Your task to perform on an android device: create a new album in the google photos Image 0: 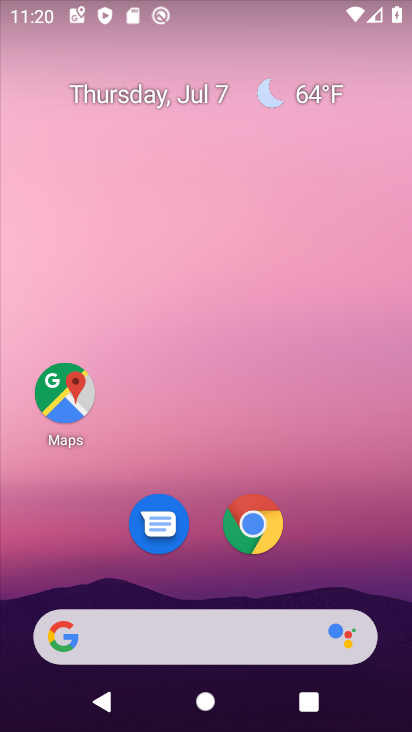
Step 0: drag from (286, 468) to (328, 24)
Your task to perform on an android device: create a new album in the google photos Image 1: 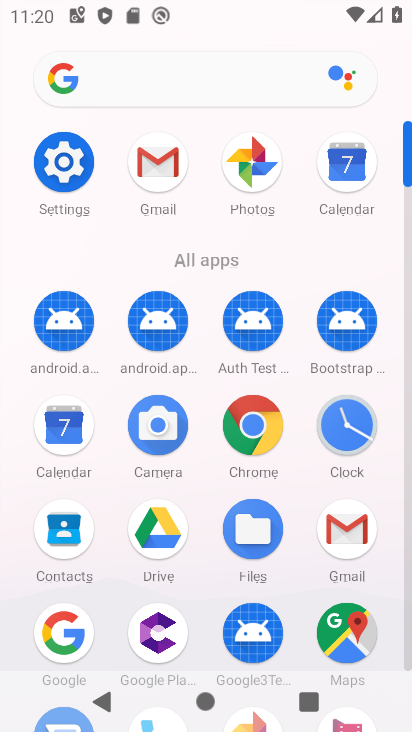
Step 1: click (252, 165)
Your task to perform on an android device: create a new album in the google photos Image 2: 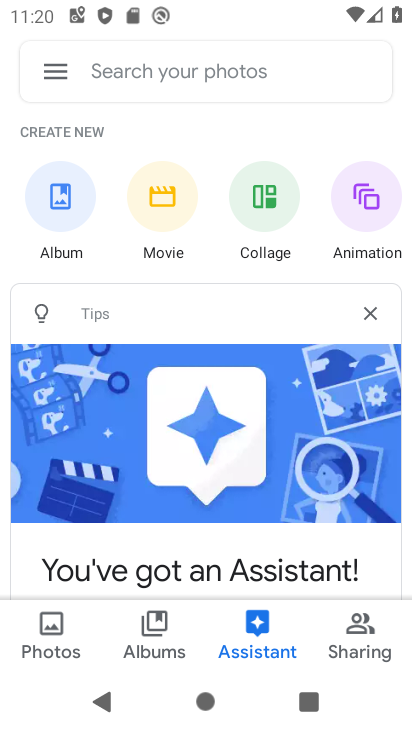
Step 2: click (152, 646)
Your task to perform on an android device: create a new album in the google photos Image 3: 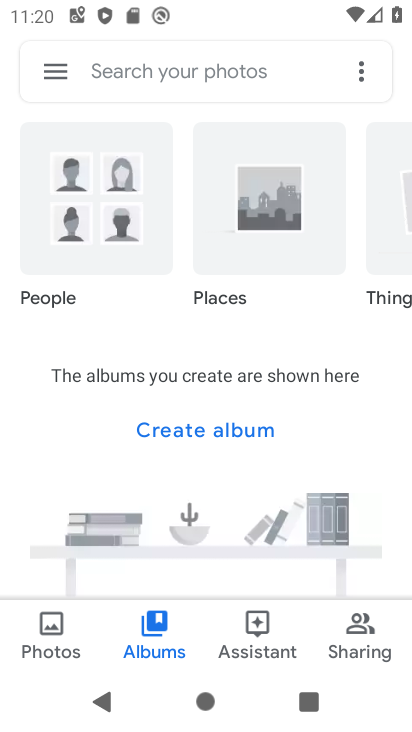
Step 3: click (250, 424)
Your task to perform on an android device: create a new album in the google photos Image 4: 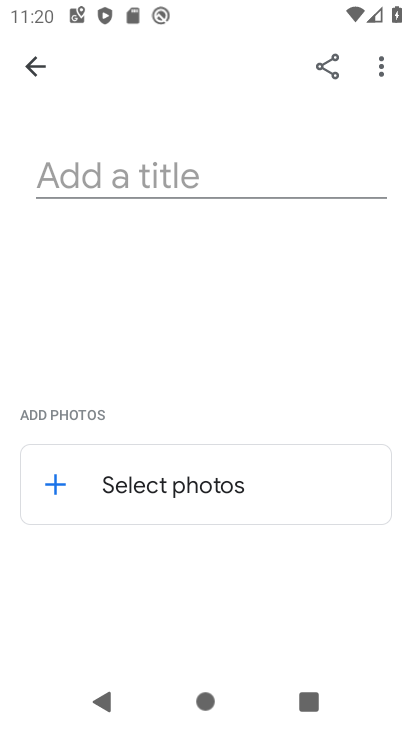
Step 4: click (239, 191)
Your task to perform on an android device: create a new album in the google photos Image 5: 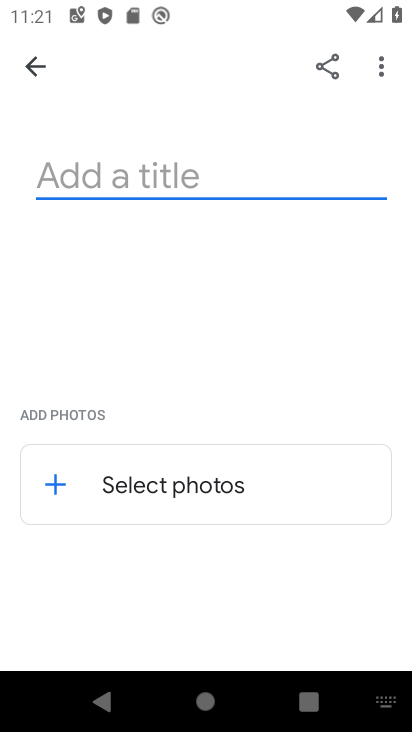
Step 5: type "Ayodhya"
Your task to perform on an android device: create a new album in the google photos Image 6: 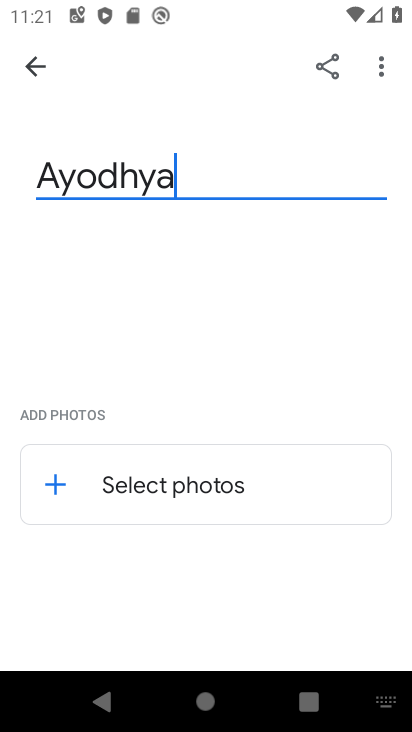
Step 6: click (207, 486)
Your task to perform on an android device: create a new album in the google photos Image 7: 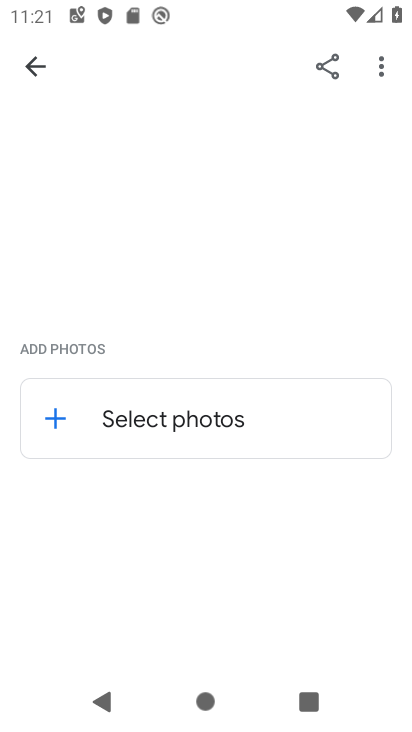
Step 7: click (56, 412)
Your task to perform on an android device: create a new album in the google photos Image 8: 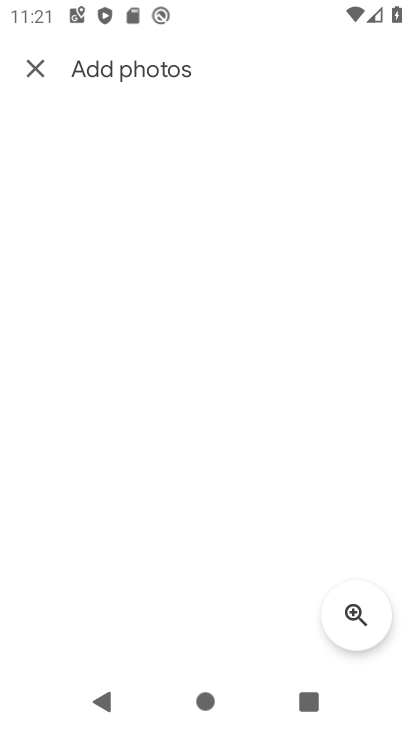
Step 8: task complete